Your task to perform on an android device: Do I have any events today? Image 0: 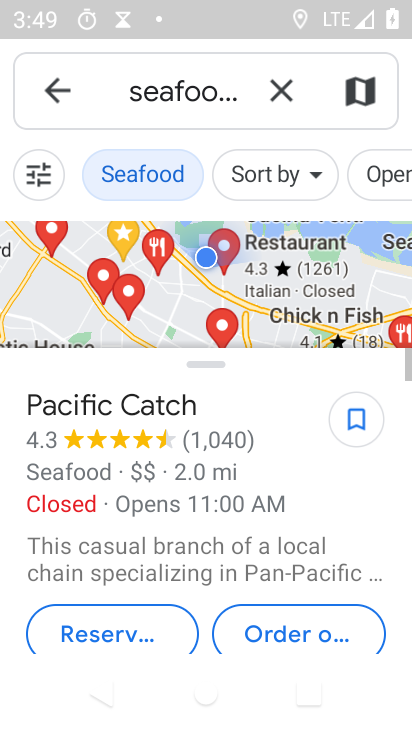
Step 0: press home button
Your task to perform on an android device: Do I have any events today? Image 1: 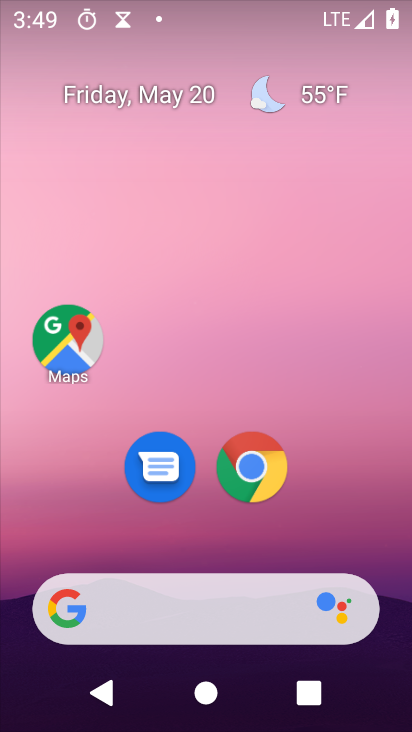
Step 1: drag from (206, 540) to (190, 40)
Your task to perform on an android device: Do I have any events today? Image 2: 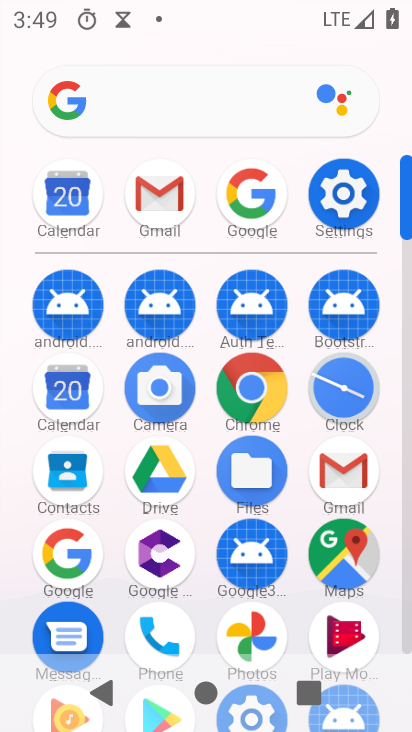
Step 2: click (65, 404)
Your task to perform on an android device: Do I have any events today? Image 3: 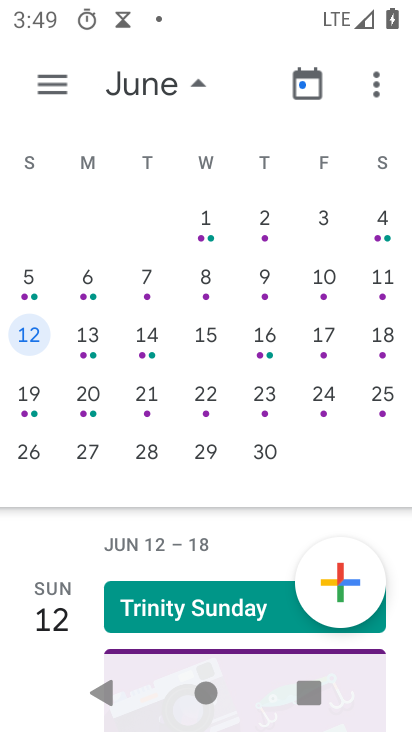
Step 3: drag from (49, 357) to (397, 323)
Your task to perform on an android device: Do I have any events today? Image 4: 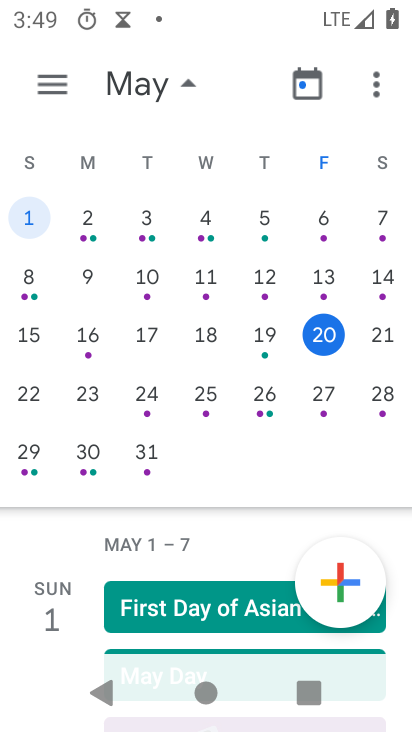
Step 4: click (333, 334)
Your task to perform on an android device: Do I have any events today? Image 5: 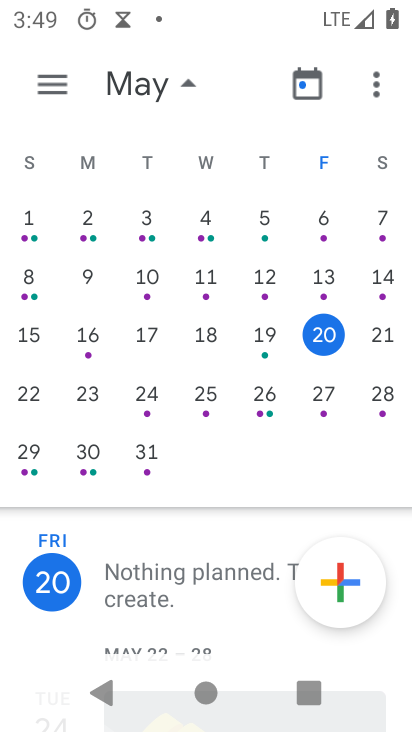
Step 5: task complete